Your task to perform on an android device: set the timer Image 0: 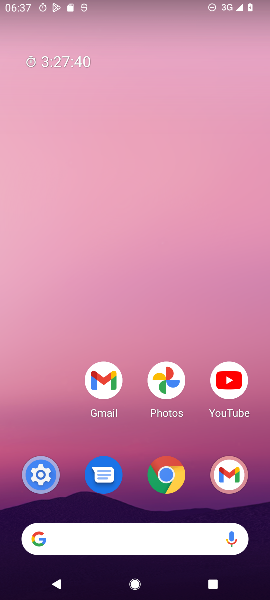
Step 0: press home button
Your task to perform on an android device: set the timer Image 1: 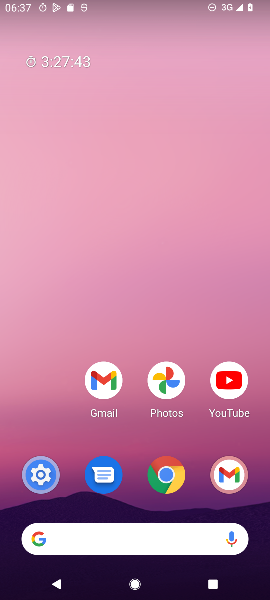
Step 1: drag from (58, 425) to (58, 202)
Your task to perform on an android device: set the timer Image 2: 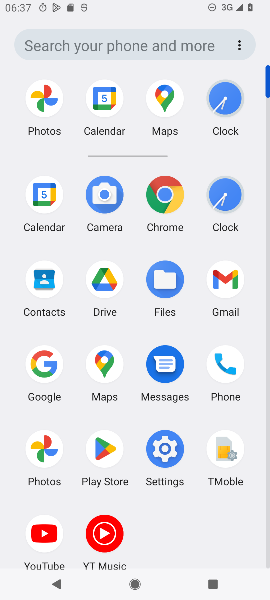
Step 2: click (228, 194)
Your task to perform on an android device: set the timer Image 3: 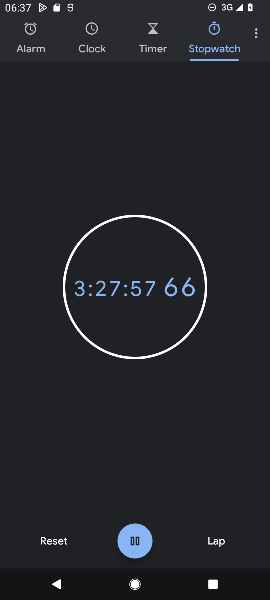
Step 3: click (151, 37)
Your task to perform on an android device: set the timer Image 4: 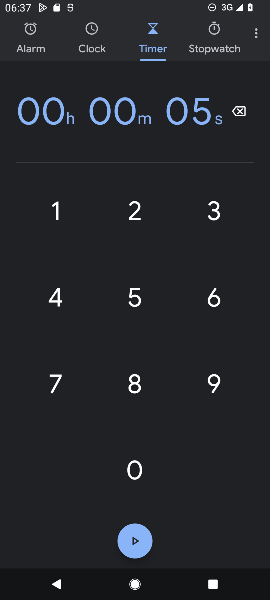
Step 4: click (134, 386)
Your task to perform on an android device: set the timer Image 5: 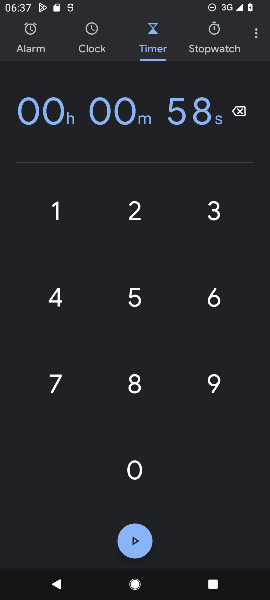
Step 5: task complete